Your task to perform on an android device: turn off airplane mode Image 0: 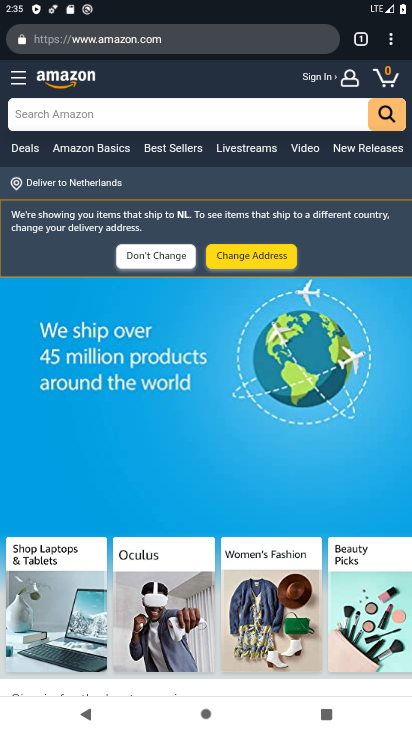
Step 0: press home button
Your task to perform on an android device: turn off airplane mode Image 1: 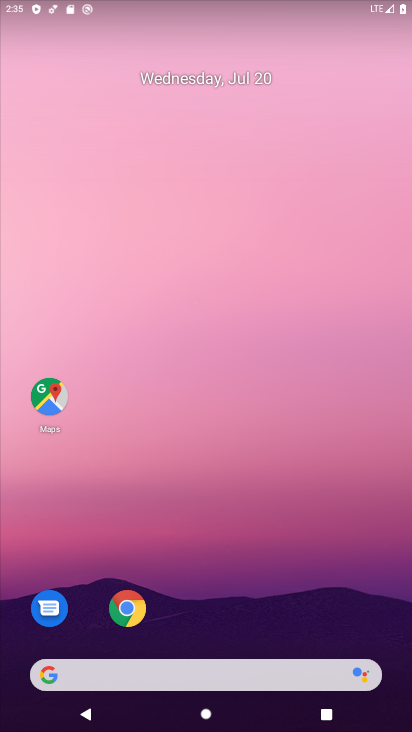
Step 1: drag from (229, 656) to (300, 1)
Your task to perform on an android device: turn off airplane mode Image 2: 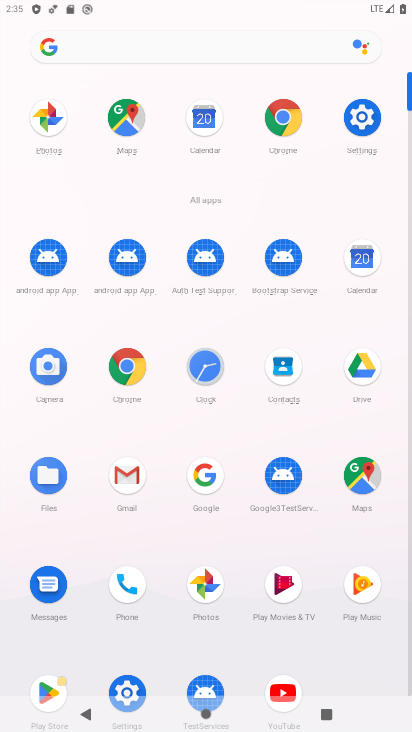
Step 2: click (366, 105)
Your task to perform on an android device: turn off airplane mode Image 3: 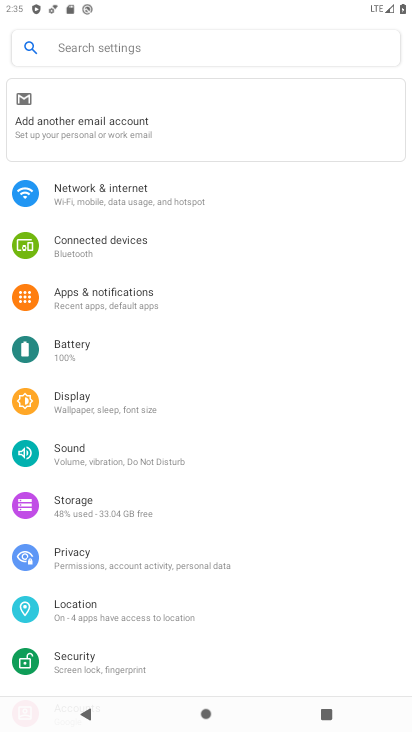
Step 3: click (106, 181)
Your task to perform on an android device: turn off airplane mode Image 4: 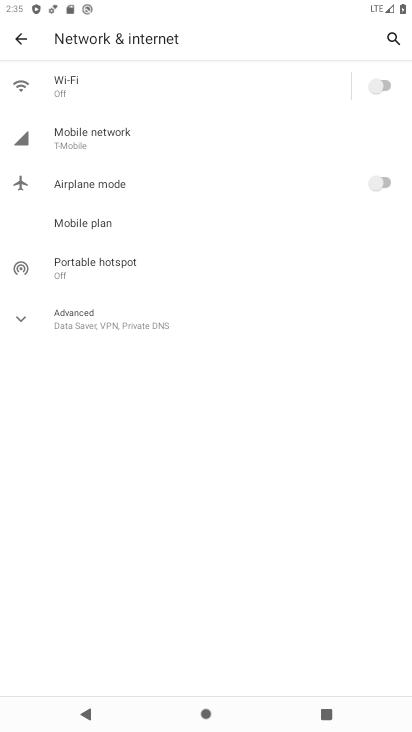
Step 4: click (120, 184)
Your task to perform on an android device: turn off airplane mode Image 5: 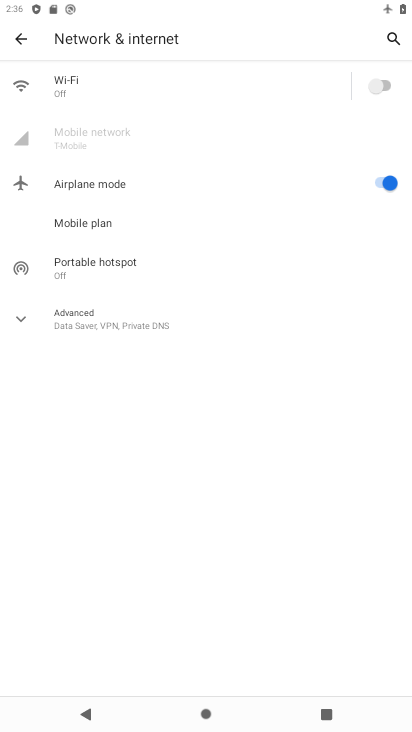
Step 5: click (120, 184)
Your task to perform on an android device: turn off airplane mode Image 6: 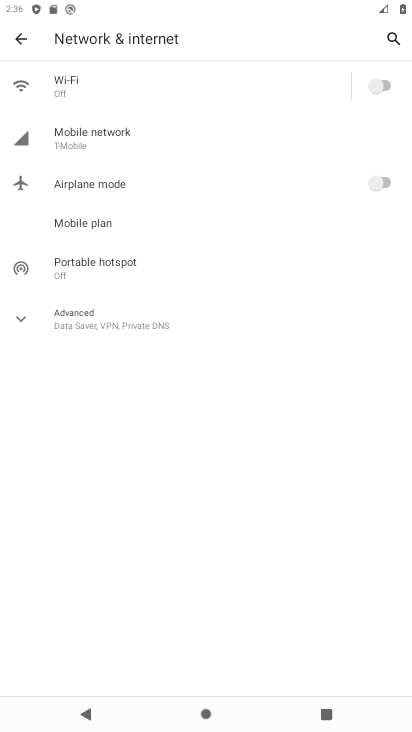
Step 6: task complete